Your task to perform on an android device: turn off location Image 0: 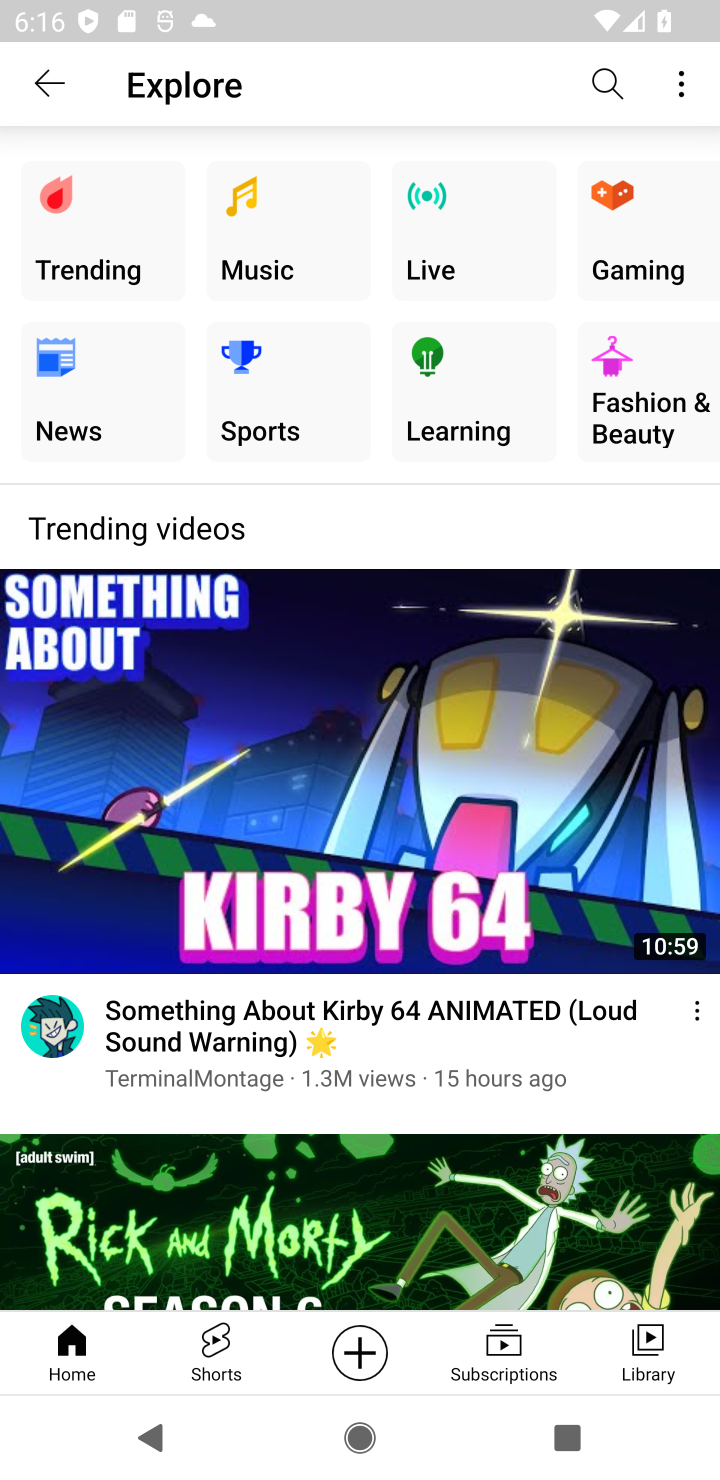
Step 0: press home button
Your task to perform on an android device: turn off location Image 1: 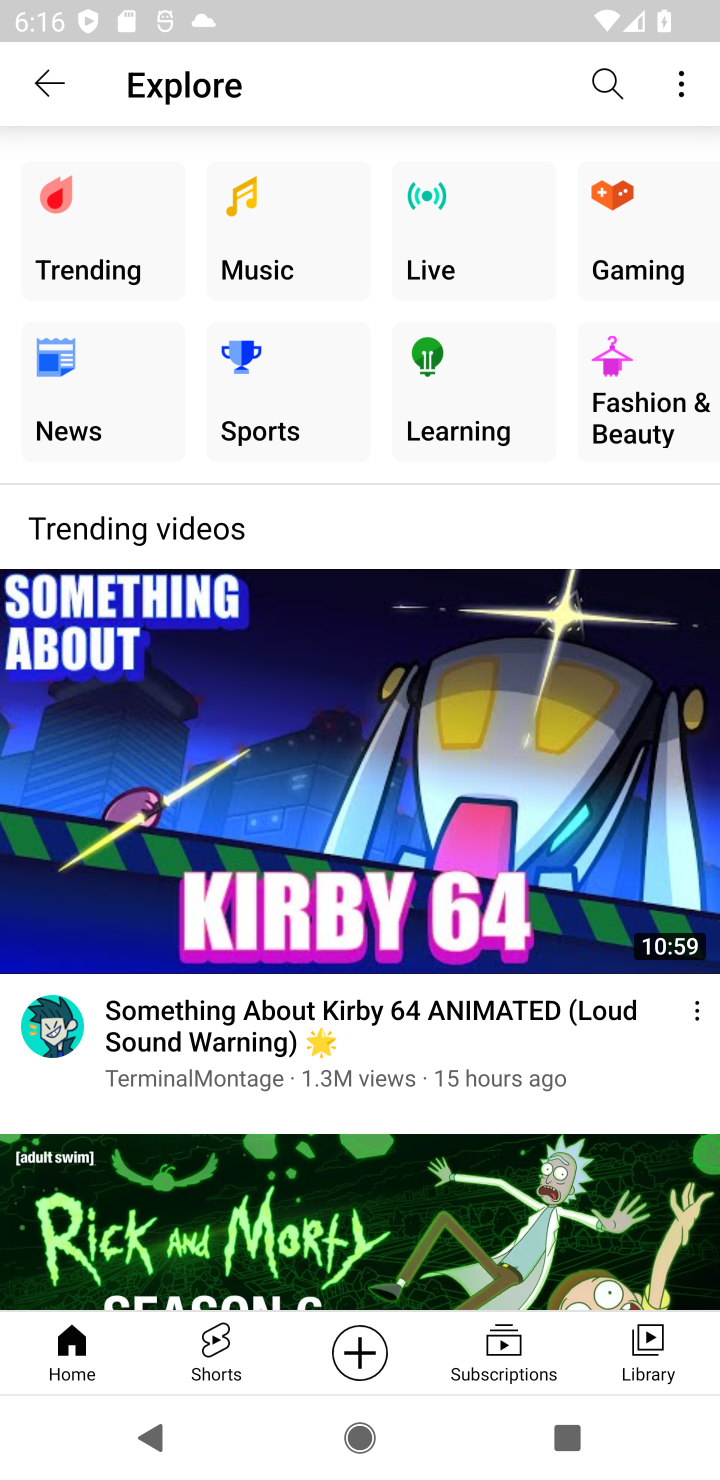
Step 1: press home button
Your task to perform on an android device: turn off location Image 2: 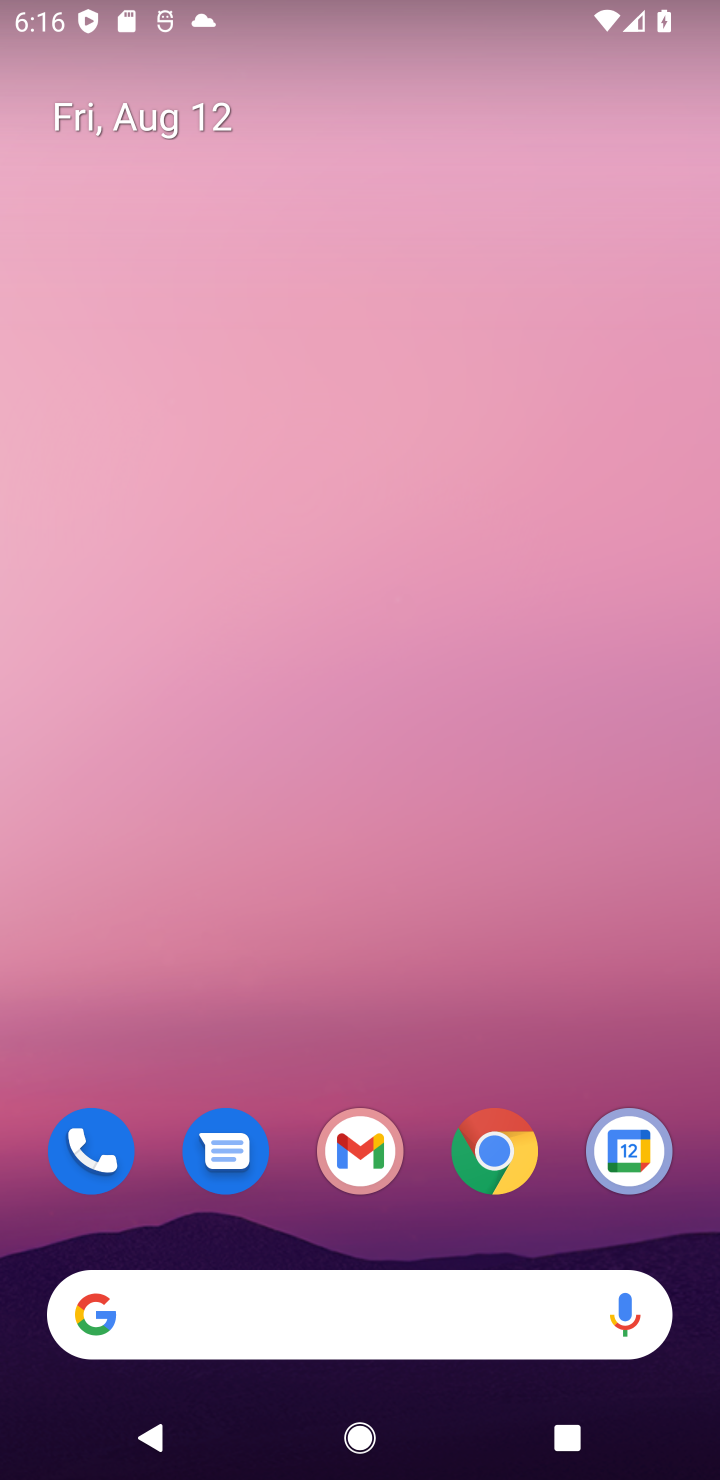
Step 2: drag from (501, 977) to (468, 102)
Your task to perform on an android device: turn off location Image 3: 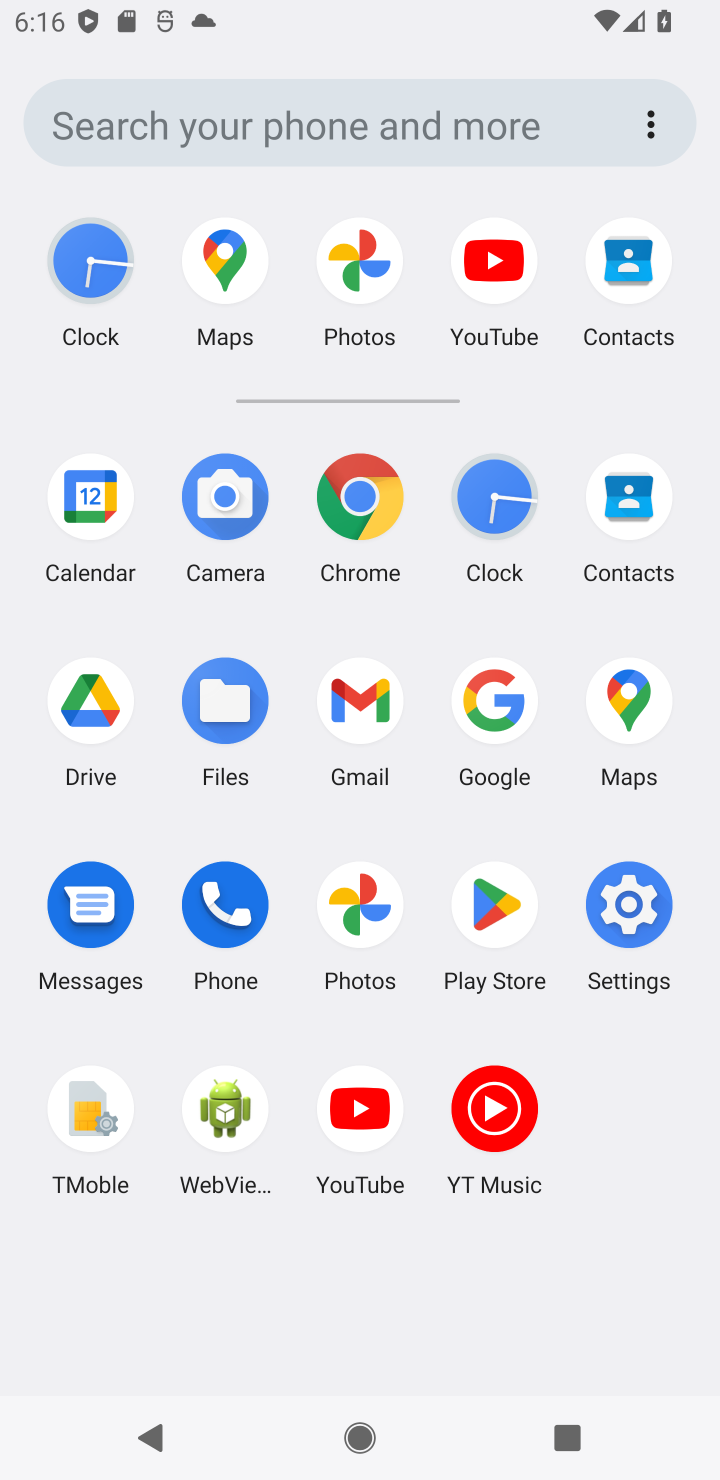
Step 3: click (651, 894)
Your task to perform on an android device: turn off location Image 4: 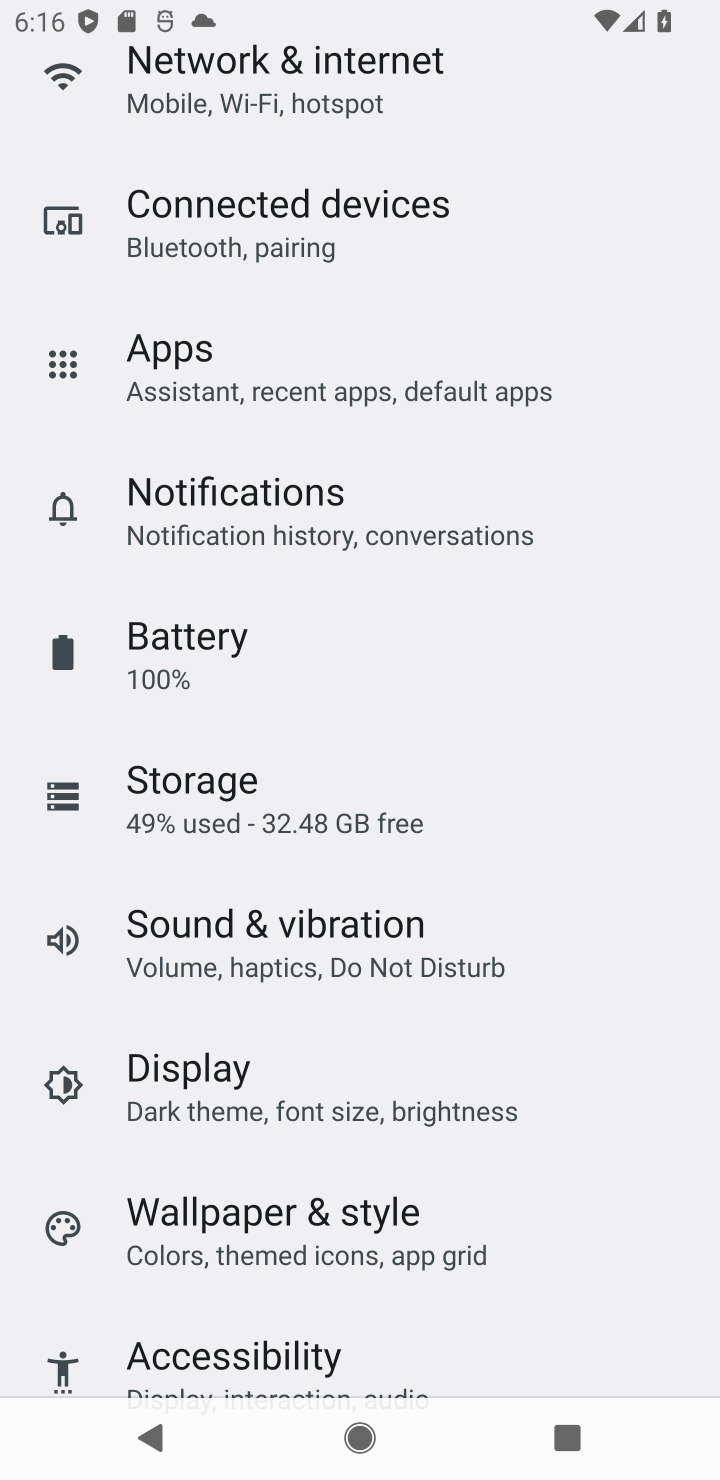
Step 4: drag from (506, 256) to (531, 1102)
Your task to perform on an android device: turn off location Image 5: 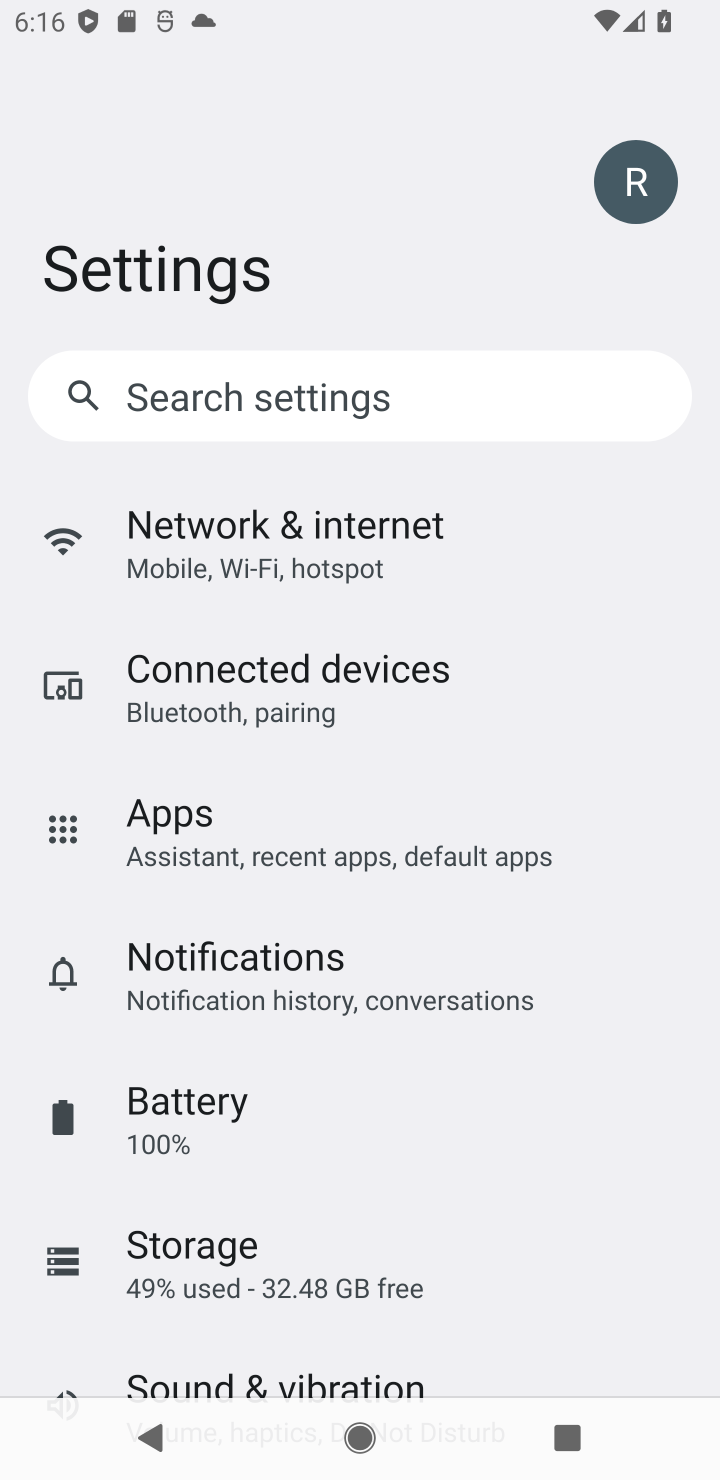
Step 5: drag from (426, 1138) to (504, 532)
Your task to perform on an android device: turn off location Image 6: 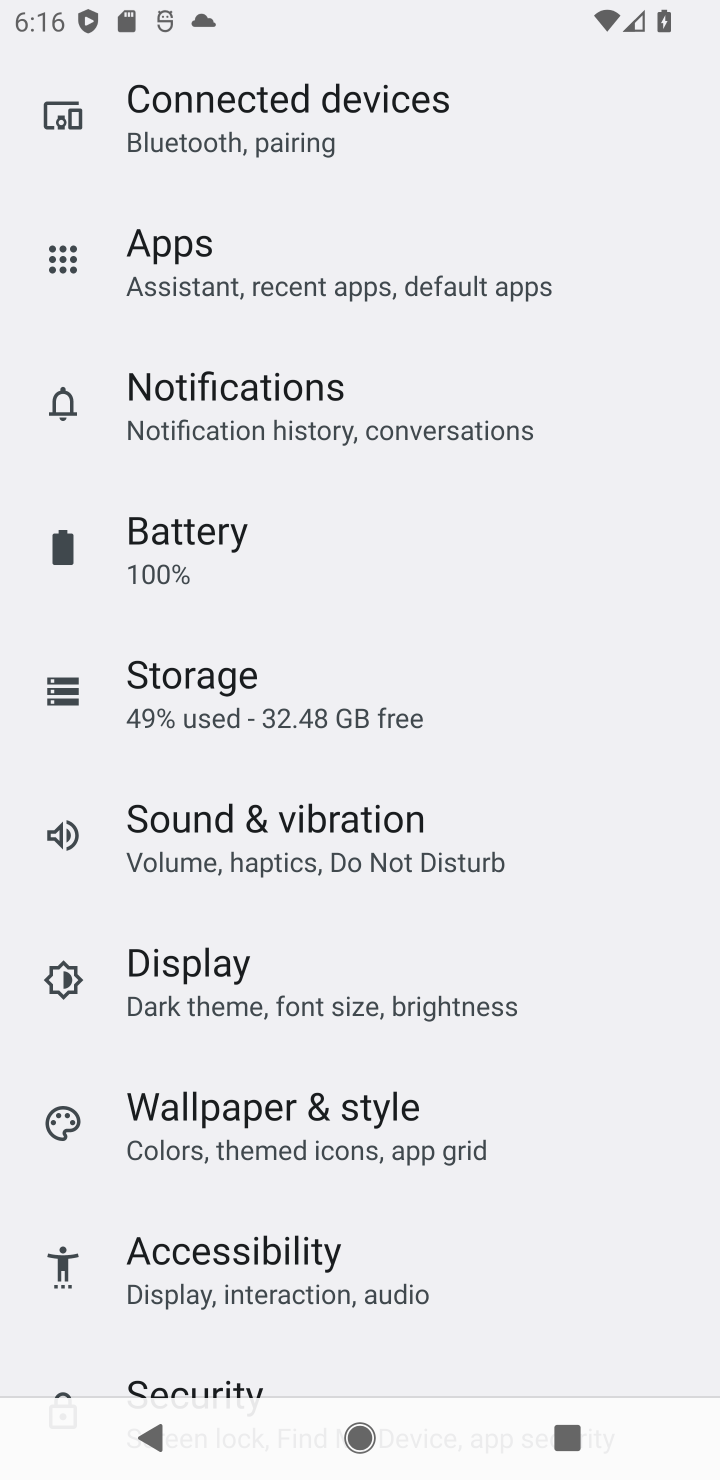
Step 6: drag from (581, 1024) to (663, 286)
Your task to perform on an android device: turn off location Image 7: 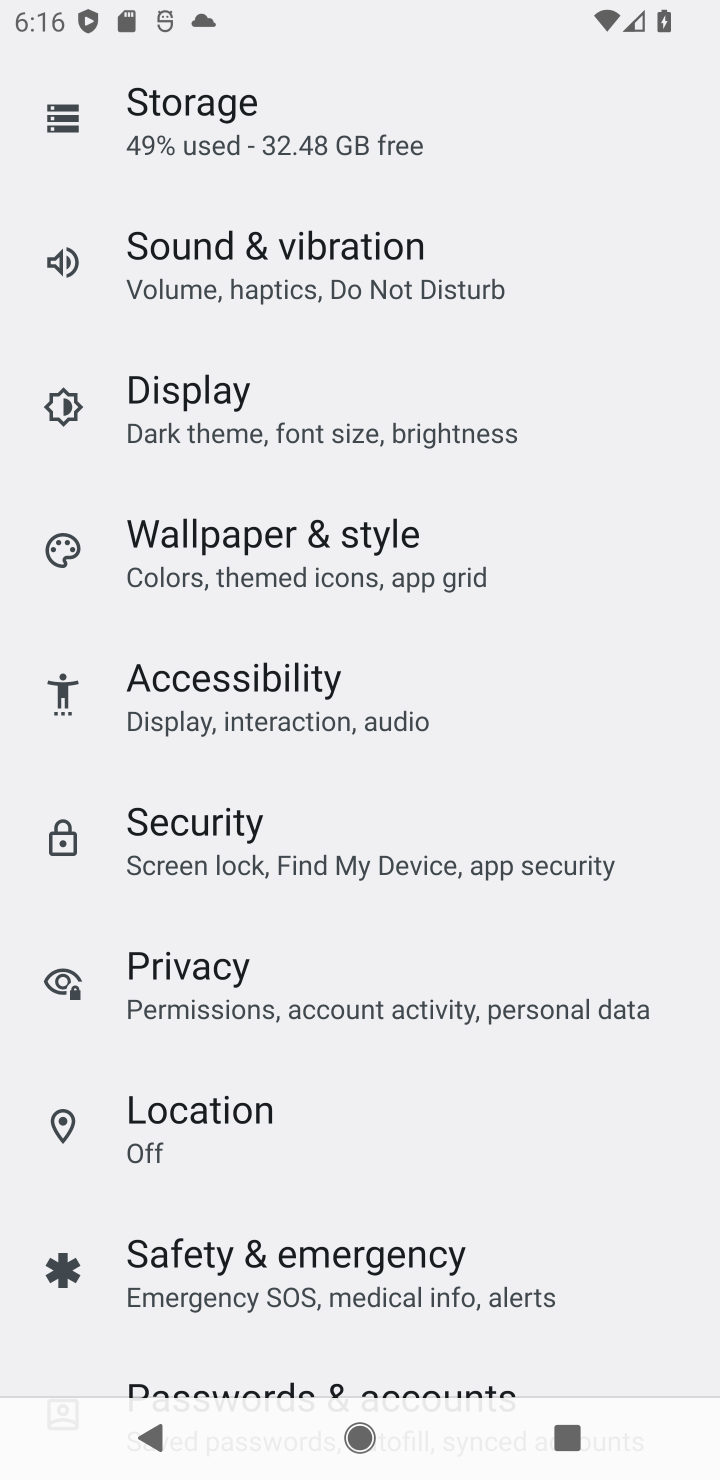
Step 7: click (184, 1127)
Your task to perform on an android device: turn off location Image 8: 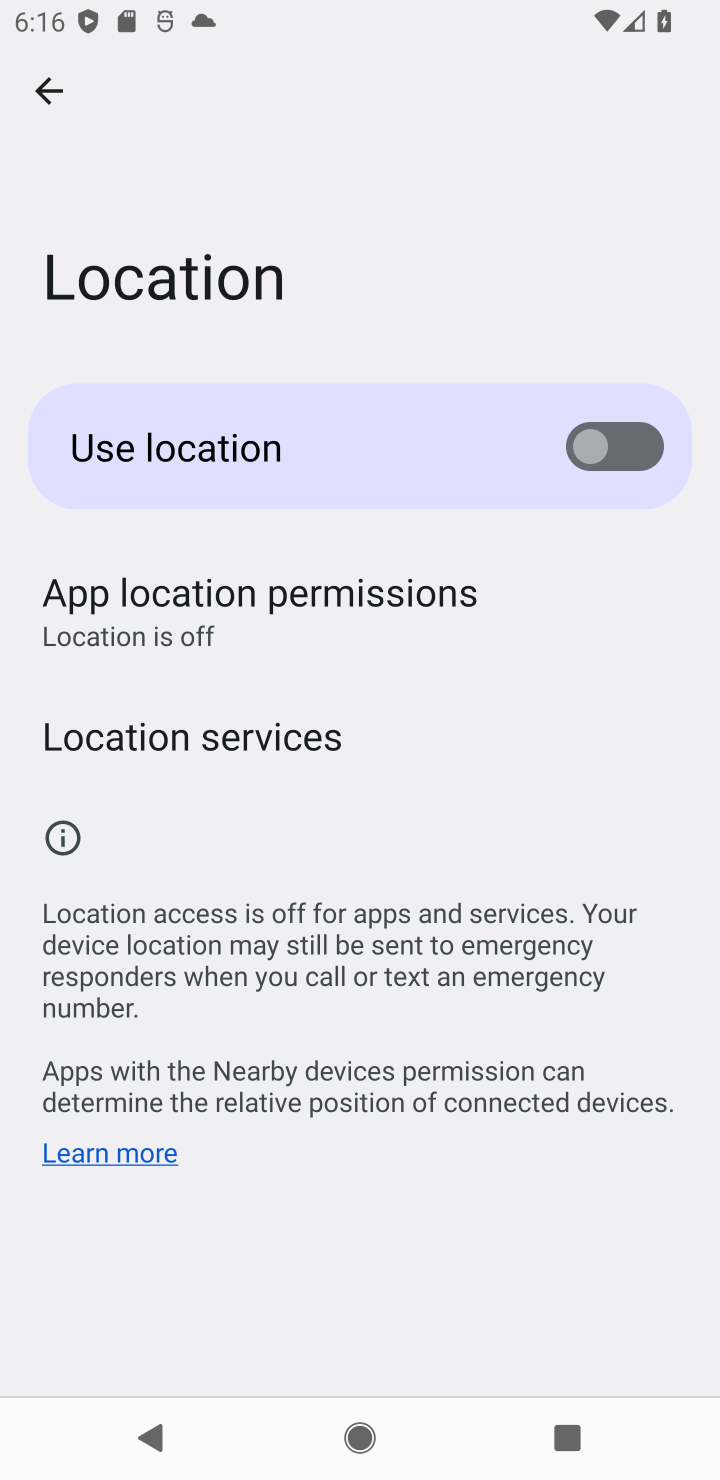
Step 8: task complete